Your task to perform on an android device: Do I have any events this weekend? Image 0: 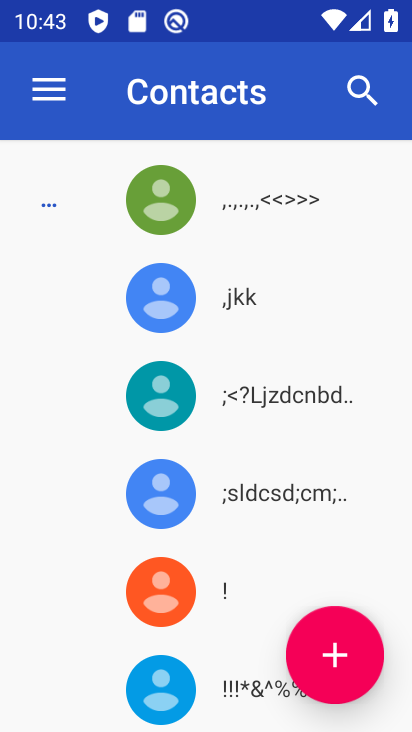
Step 0: press home button
Your task to perform on an android device: Do I have any events this weekend? Image 1: 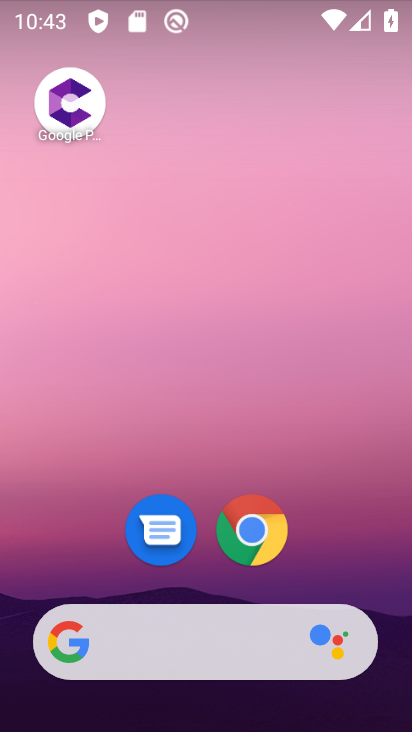
Step 1: drag from (138, 645) to (305, 184)
Your task to perform on an android device: Do I have any events this weekend? Image 2: 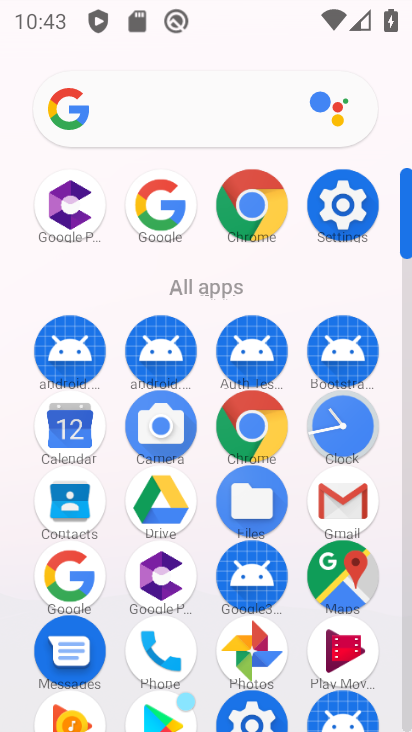
Step 2: click (70, 441)
Your task to perform on an android device: Do I have any events this weekend? Image 3: 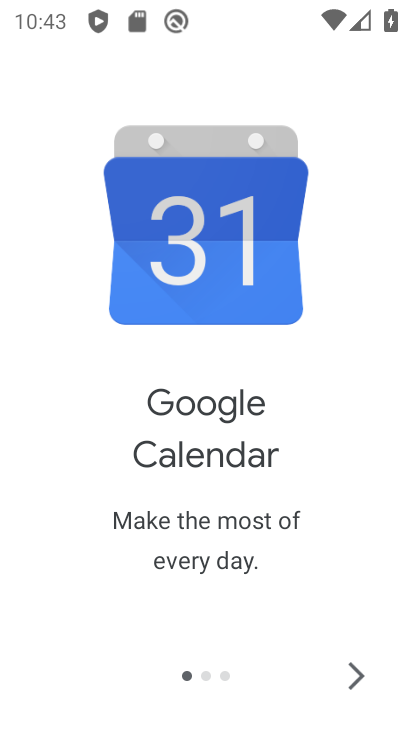
Step 3: click (362, 671)
Your task to perform on an android device: Do I have any events this weekend? Image 4: 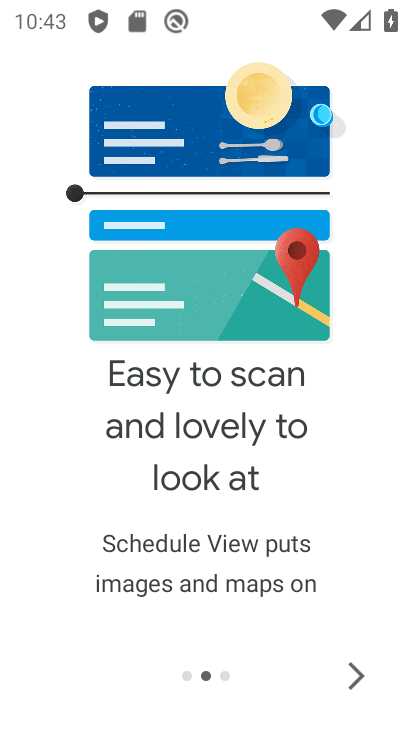
Step 4: click (362, 671)
Your task to perform on an android device: Do I have any events this weekend? Image 5: 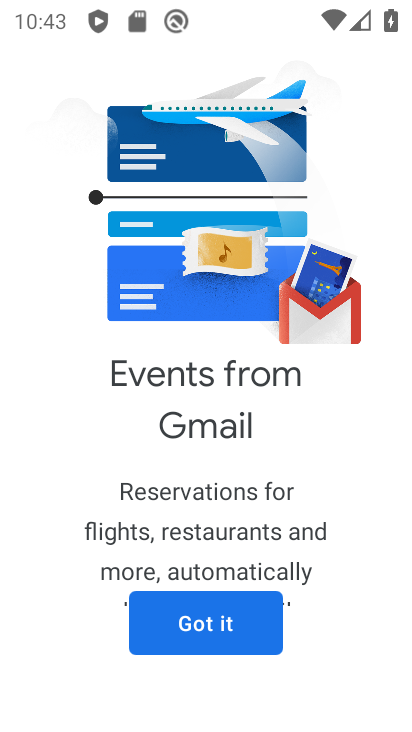
Step 5: click (237, 626)
Your task to perform on an android device: Do I have any events this weekend? Image 6: 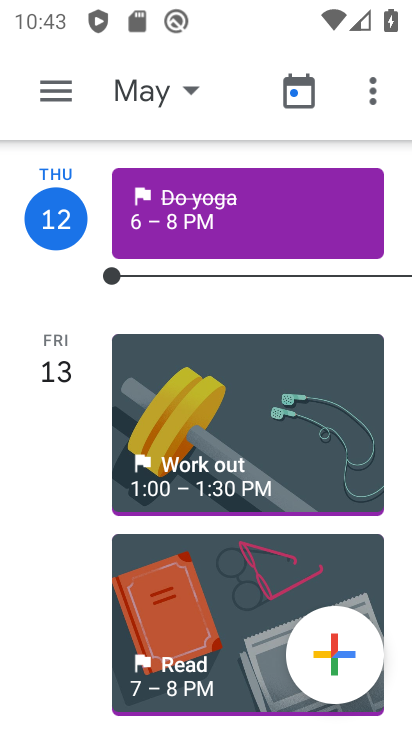
Step 6: click (126, 99)
Your task to perform on an android device: Do I have any events this weekend? Image 7: 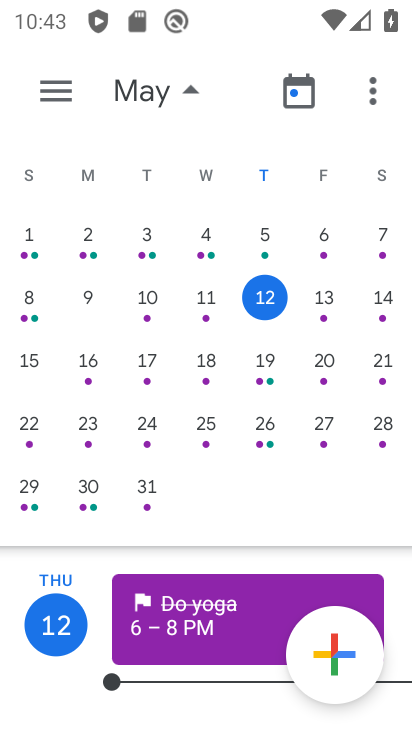
Step 7: click (384, 298)
Your task to perform on an android device: Do I have any events this weekend? Image 8: 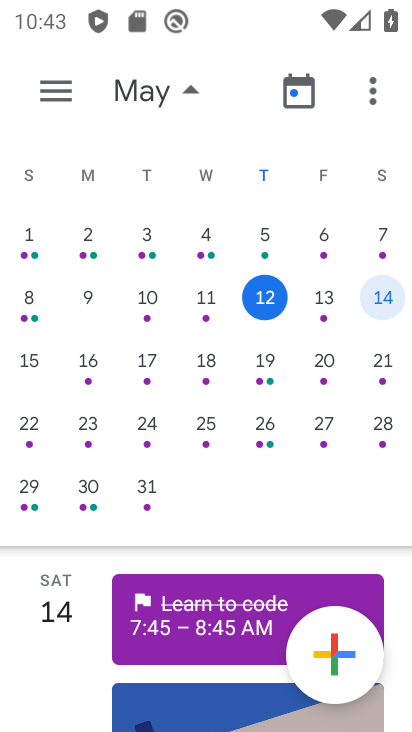
Step 8: click (71, 83)
Your task to perform on an android device: Do I have any events this weekend? Image 9: 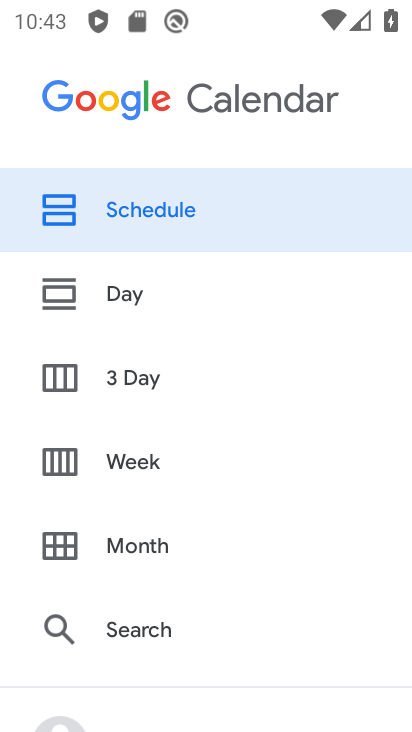
Step 9: click (148, 210)
Your task to perform on an android device: Do I have any events this weekend? Image 10: 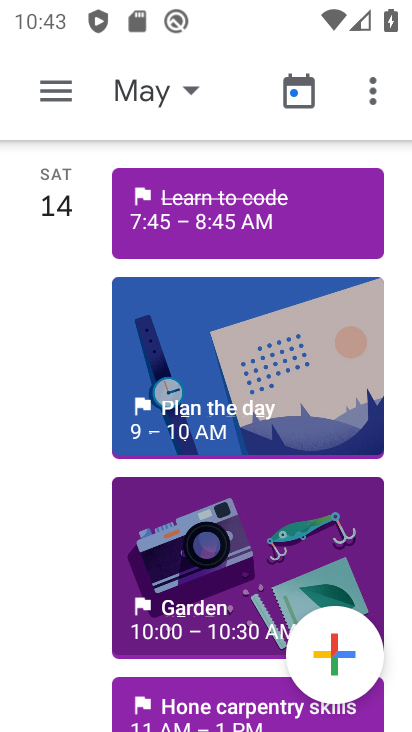
Step 10: click (259, 231)
Your task to perform on an android device: Do I have any events this weekend? Image 11: 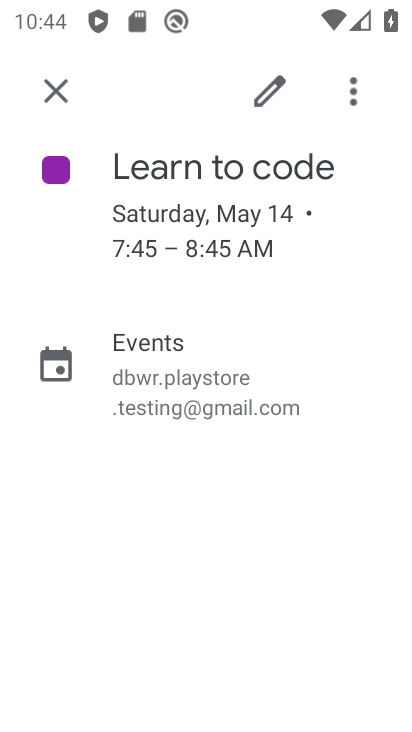
Step 11: task complete